Your task to perform on an android device: check android version Image 0: 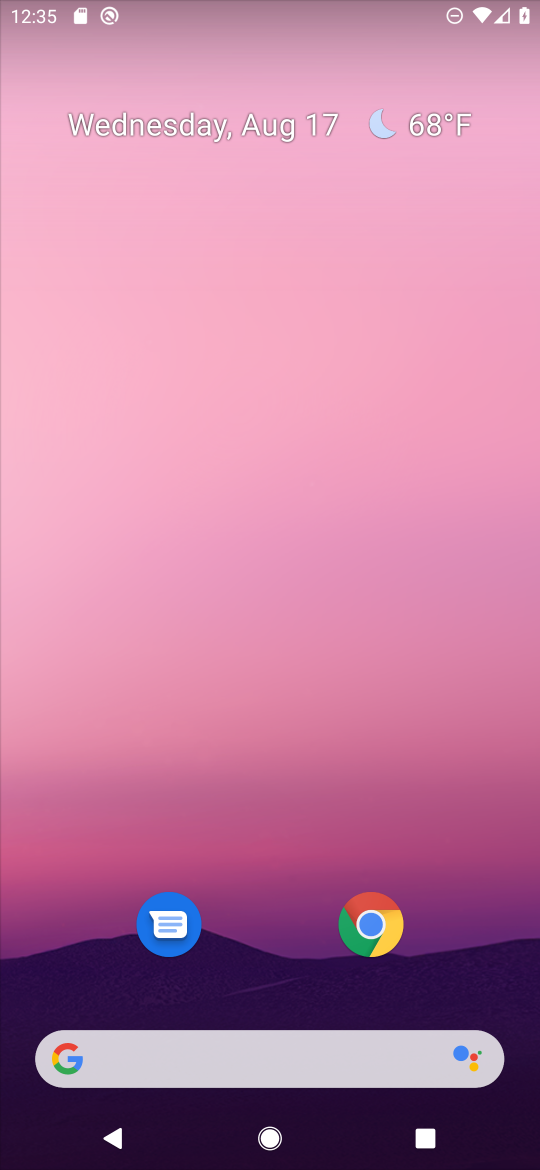
Step 0: drag from (283, 986) to (269, 87)
Your task to perform on an android device: check android version Image 1: 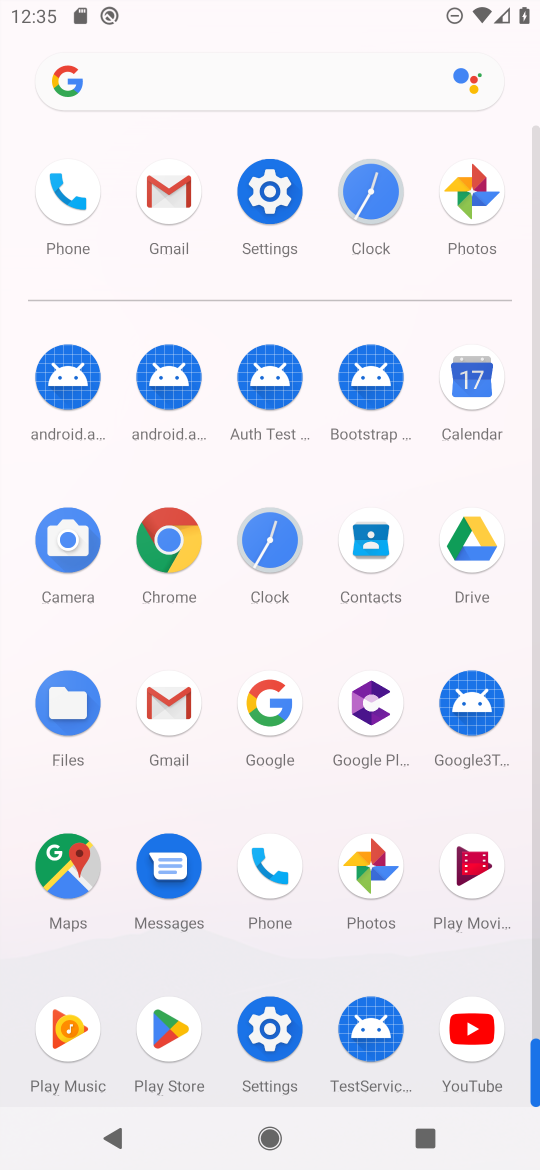
Step 1: click (262, 148)
Your task to perform on an android device: check android version Image 2: 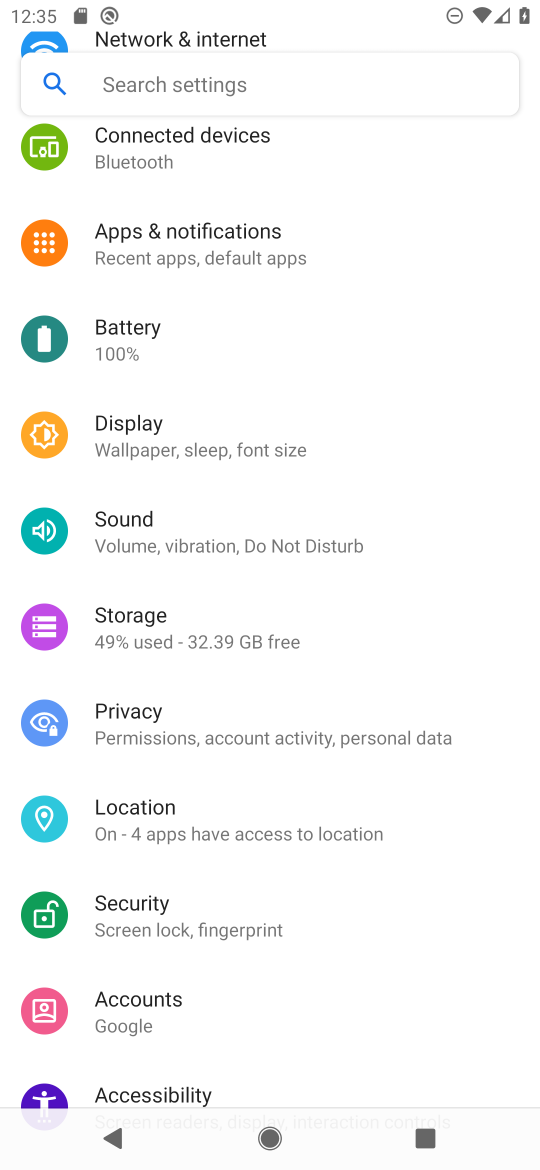
Step 2: drag from (247, 1090) to (247, 287)
Your task to perform on an android device: check android version Image 3: 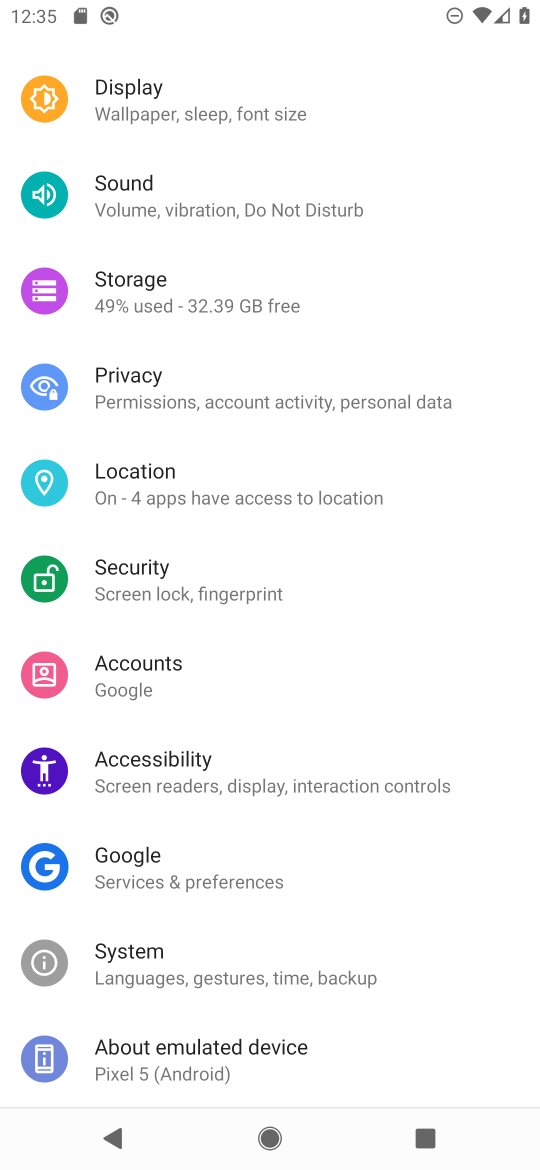
Step 3: drag from (300, 1116) to (282, 128)
Your task to perform on an android device: check android version Image 4: 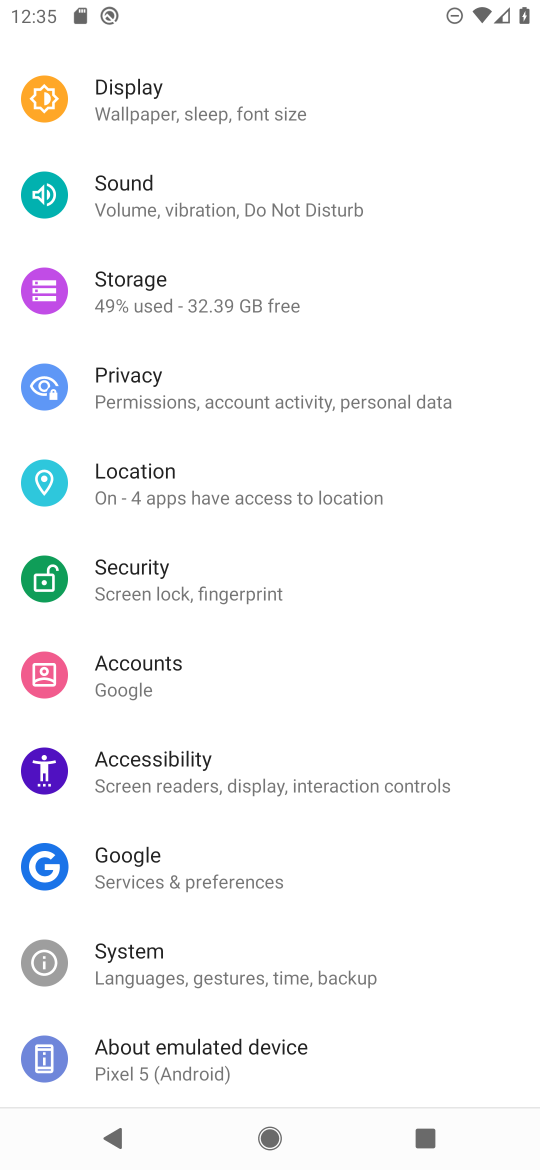
Step 4: click (143, 1063)
Your task to perform on an android device: check android version Image 5: 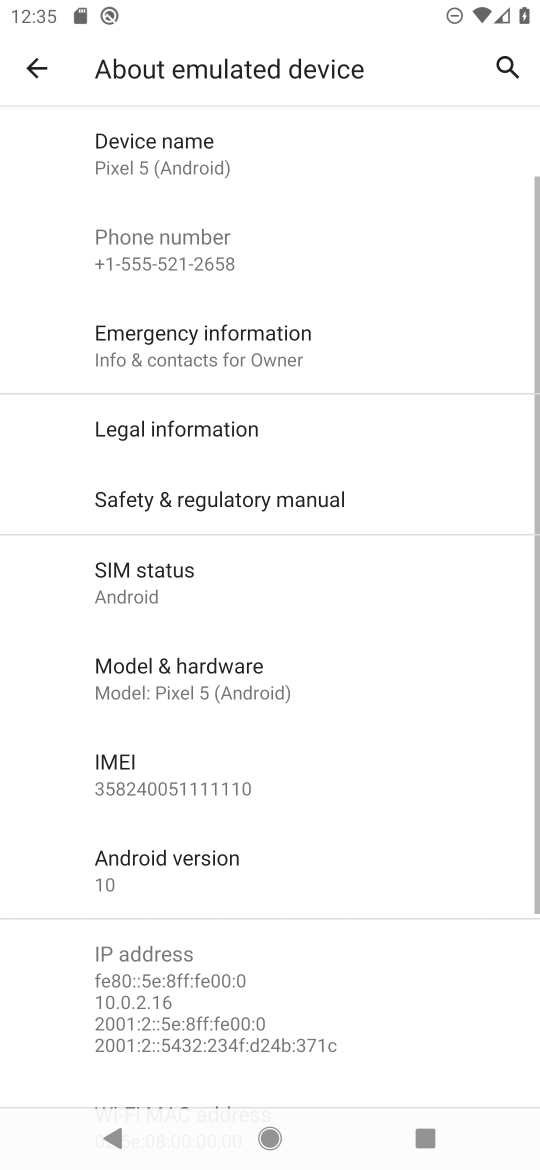
Step 5: click (312, 862)
Your task to perform on an android device: check android version Image 6: 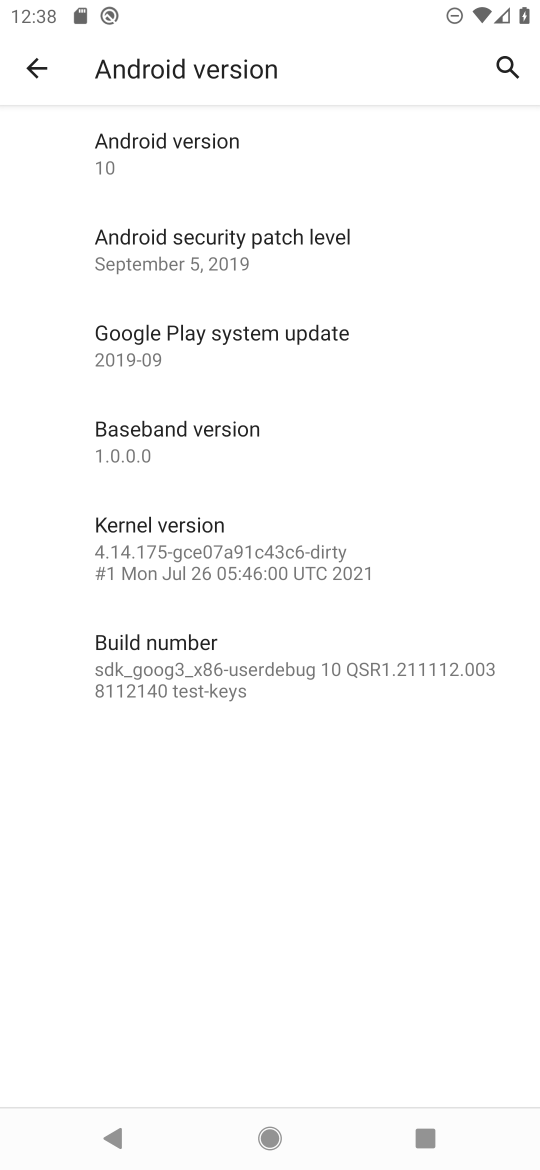
Step 6: task complete